Your task to perform on an android device: allow cookies in the chrome app Image 0: 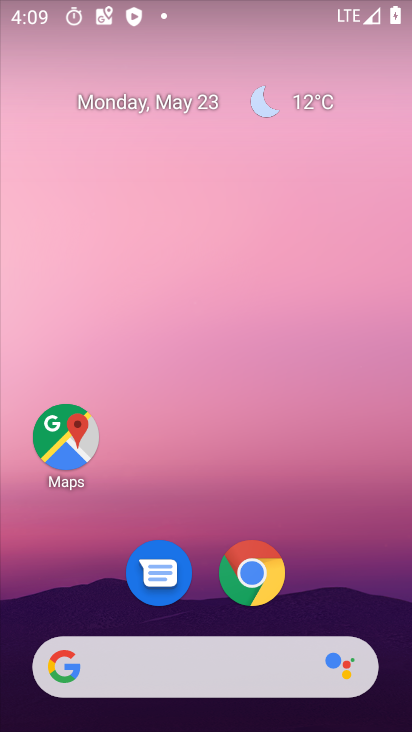
Step 0: press home button
Your task to perform on an android device: allow cookies in the chrome app Image 1: 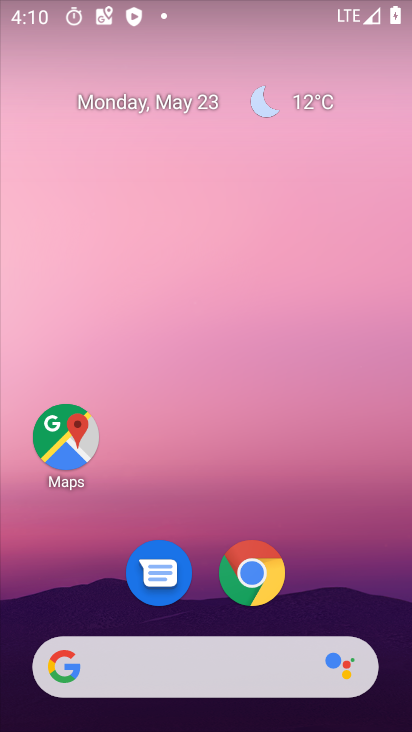
Step 1: click (251, 581)
Your task to perform on an android device: allow cookies in the chrome app Image 2: 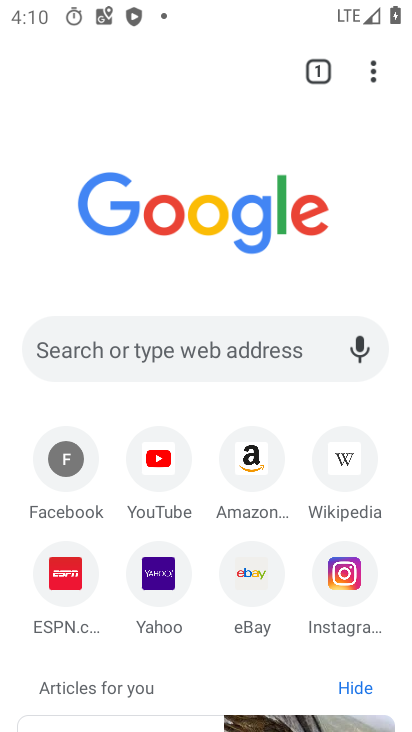
Step 2: click (362, 65)
Your task to perform on an android device: allow cookies in the chrome app Image 3: 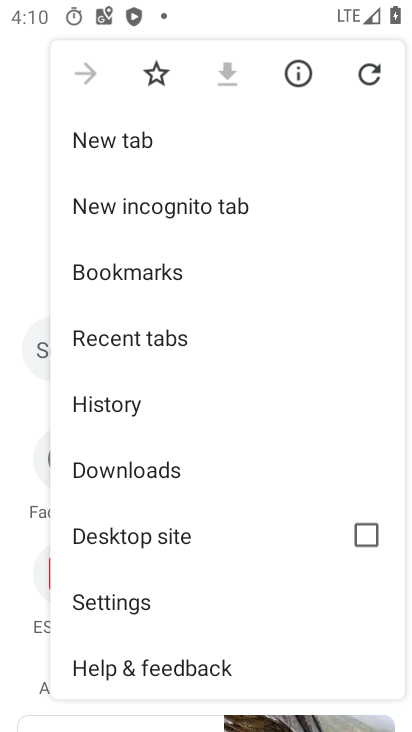
Step 3: click (115, 607)
Your task to perform on an android device: allow cookies in the chrome app Image 4: 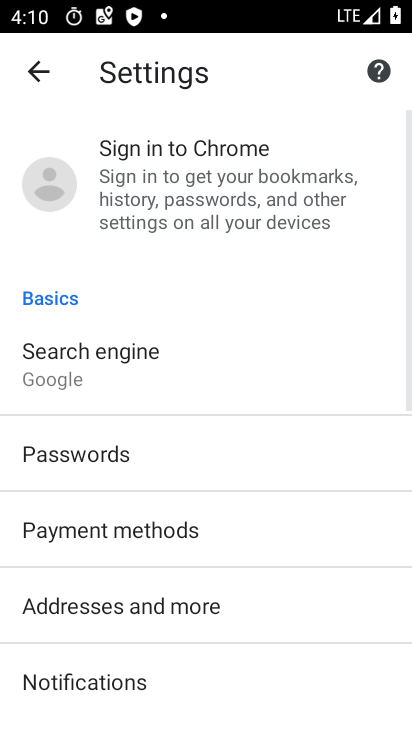
Step 4: drag from (24, 683) to (283, 240)
Your task to perform on an android device: allow cookies in the chrome app Image 5: 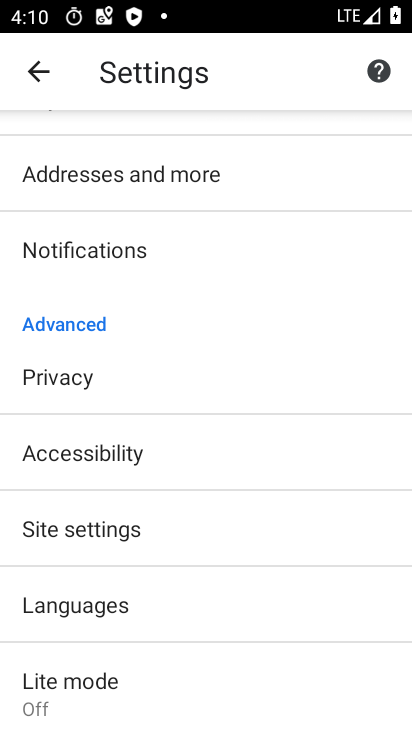
Step 5: click (96, 548)
Your task to perform on an android device: allow cookies in the chrome app Image 6: 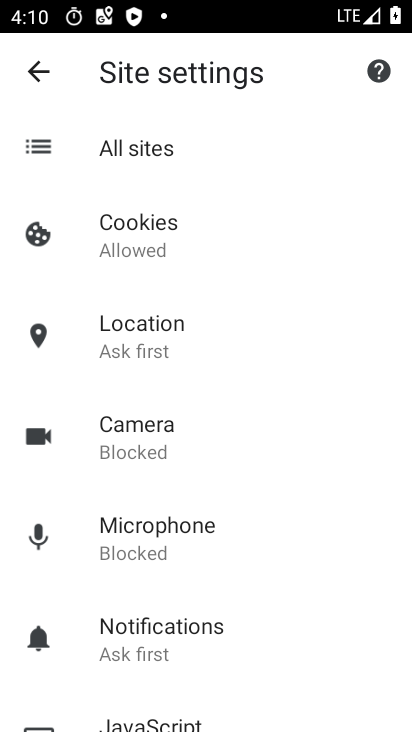
Step 6: click (137, 225)
Your task to perform on an android device: allow cookies in the chrome app Image 7: 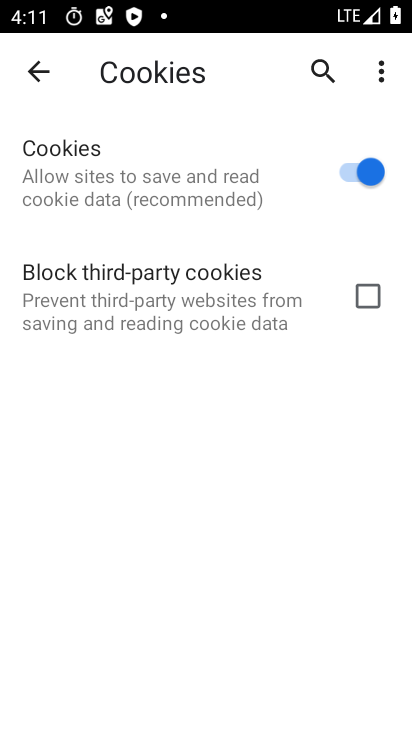
Step 7: task complete